Your task to perform on an android device: Open Yahoo.com Image 0: 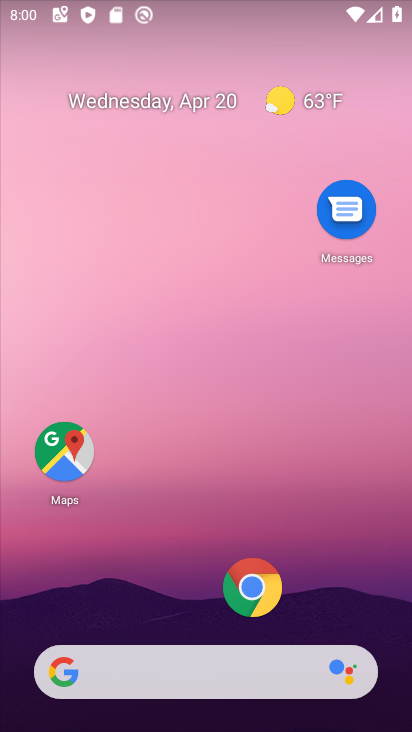
Step 0: click (276, 164)
Your task to perform on an android device: Open Yahoo.com Image 1: 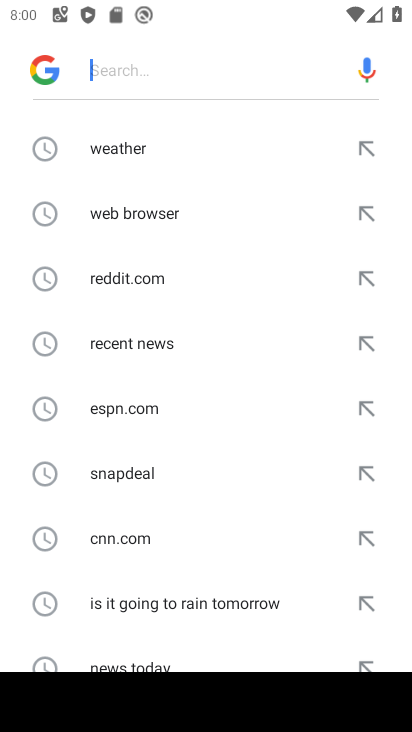
Step 1: press home button
Your task to perform on an android device: Open Yahoo.com Image 2: 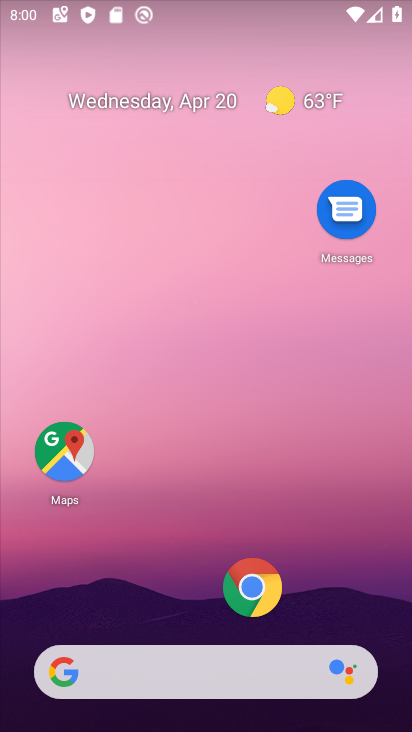
Step 2: drag from (166, 669) to (273, 207)
Your task to perform on an android device: Open Yahoo.com Image 3: 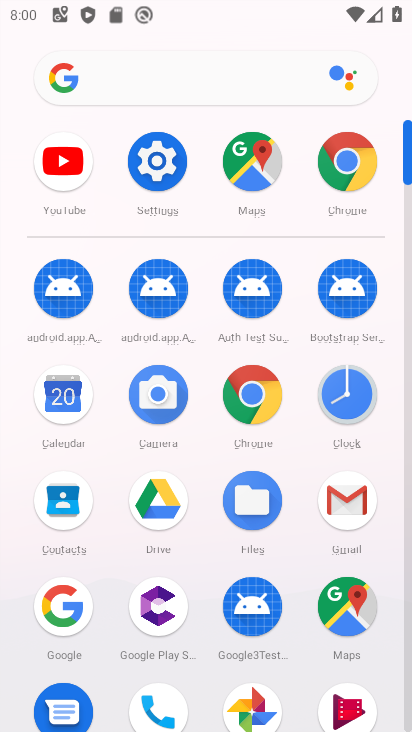
Step 3: click (347, 174)
Your task to perform on an android device: Open Yahoo.com Image 4: 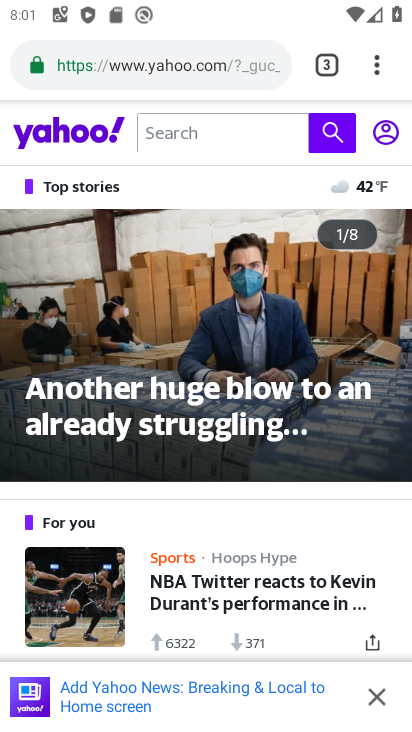
Step 4: click (369, 73)
Your task to perform on an android device: Open Yahoo.com Image 5: 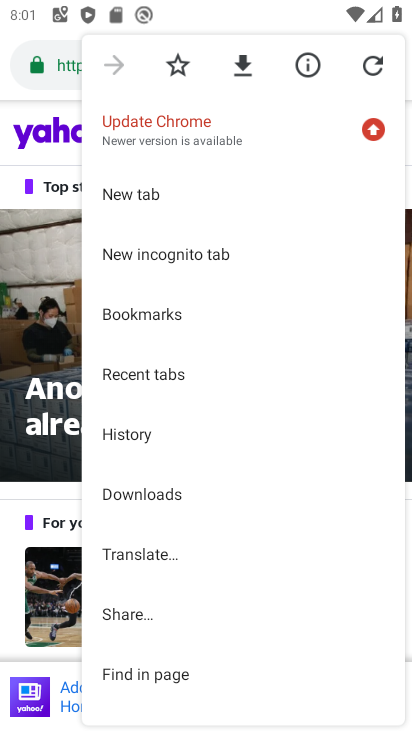
Step 5: click (129, 196)
Your task to perform on an android device: Open Yahoo.com Image 6: 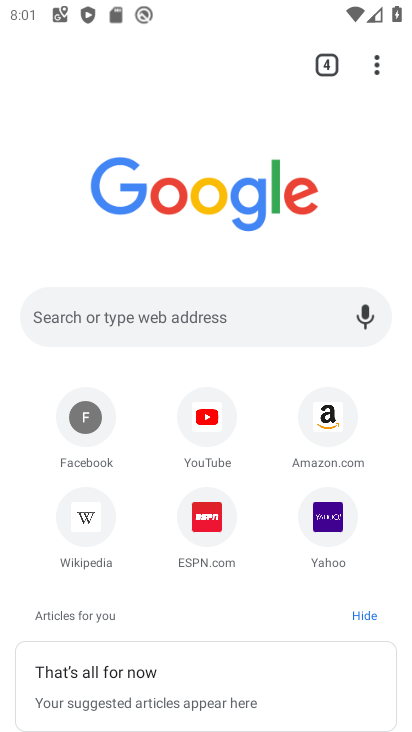
Step 6: click (75, 320)
Your task to perform on an android device: Open Yahoo.com Image 7: 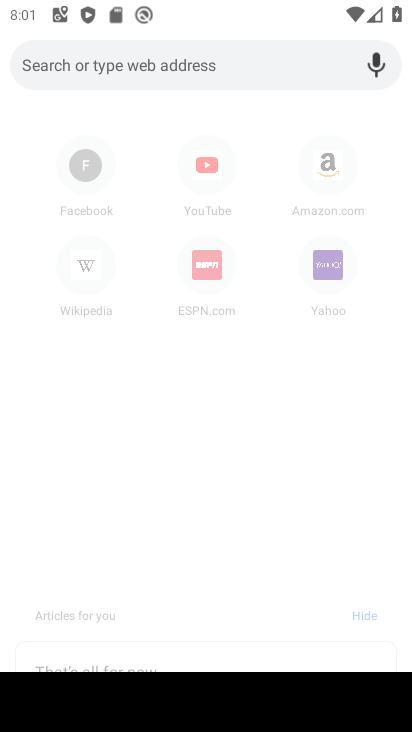
Step 7: type "ebay"
Your task to perform on an android device: Open Yahoo.com Image 8: 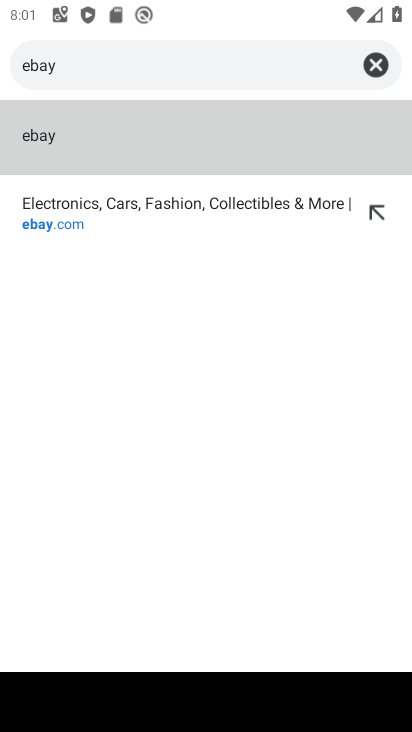
Step 8: click (56, 128)
Your task to perform on an android device: Open Yahoo.com Image 9: 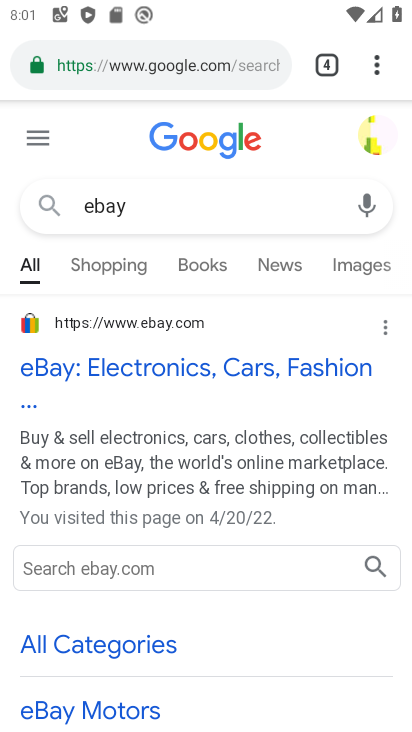
Step 9: click (127, 369)
Your task to perform on an android device: Open Yahoo.com Image 10: 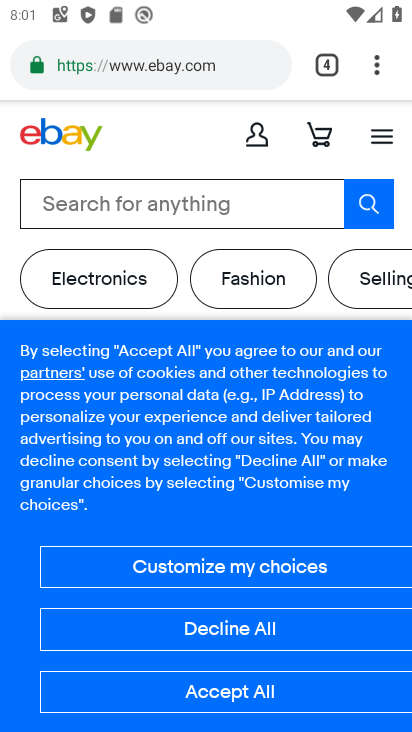
Step 10: task complete